Your task to perform on an android device: Go to Amazon Image 0: 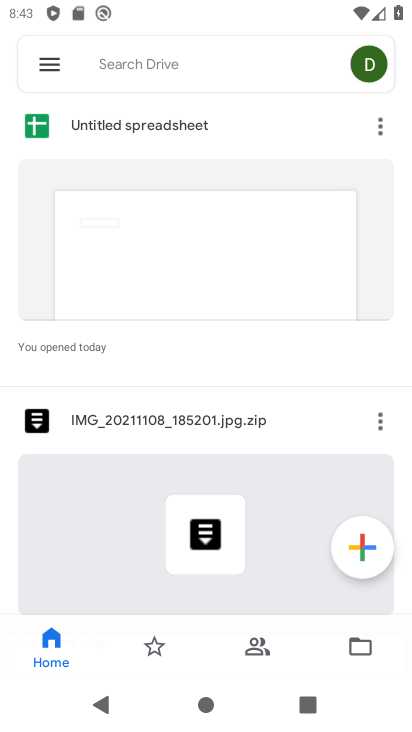
Step 0: press home button
Your task to perform on an android device: Go to Amazon Image 1: 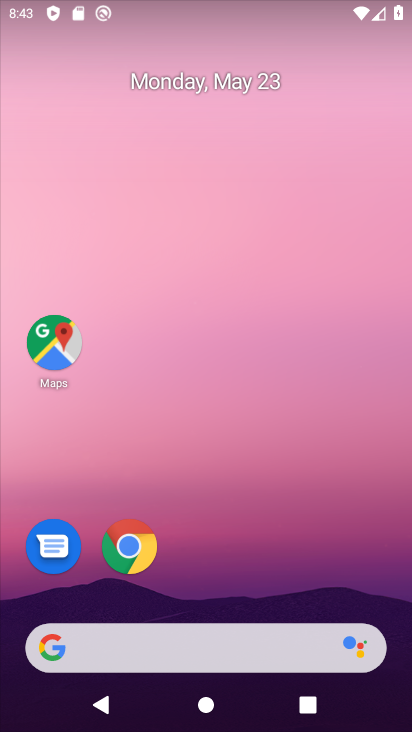
Step 1: drag from (303, 529) to (326, 138)
Your task to perform on an android device: Go to Amazon Image 2: 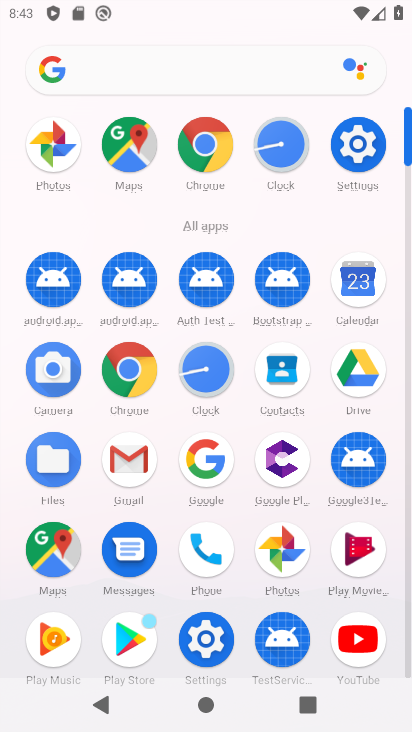
Step 2: click (133, 372)
Your task to perform on an android device: Go to Amazon Image 3: 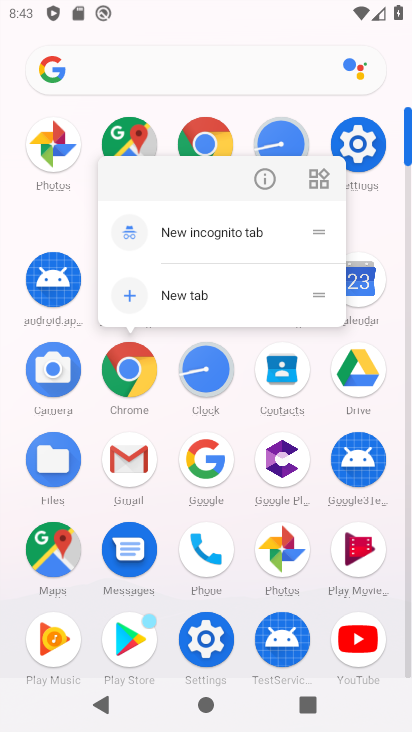
Step 3: click (133, 372)
Your task to perform on an android device: Go to Amazon Image 4: 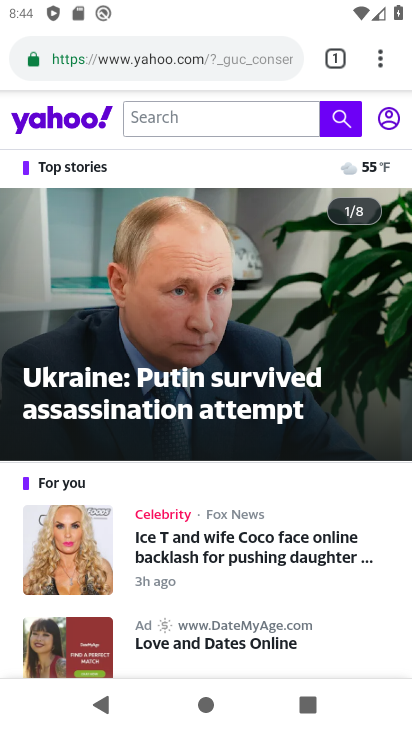
Step 4: click (218, 61)
Your task to perform on an android device: Go to Amazon Image 5: 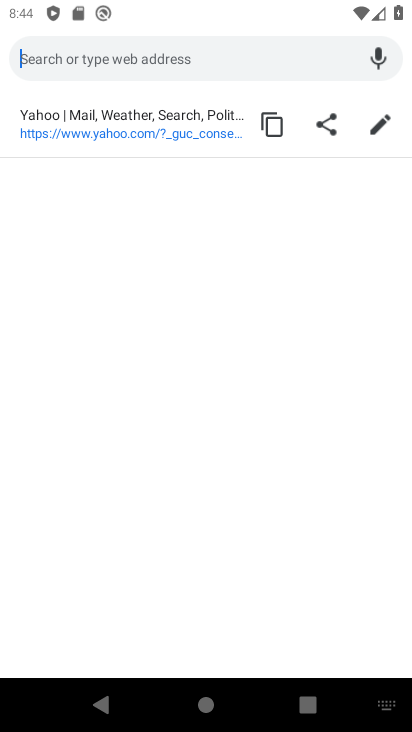
Step 5: type "amazon"
Your task to perform on an android device: Go to Amazon Image 6: 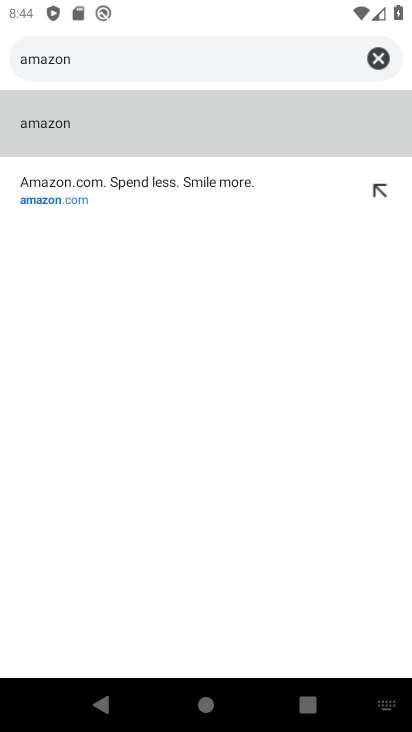
Step 6: click (64, 203)
Your task to perform on an android device: Go to Amazon Image 7: 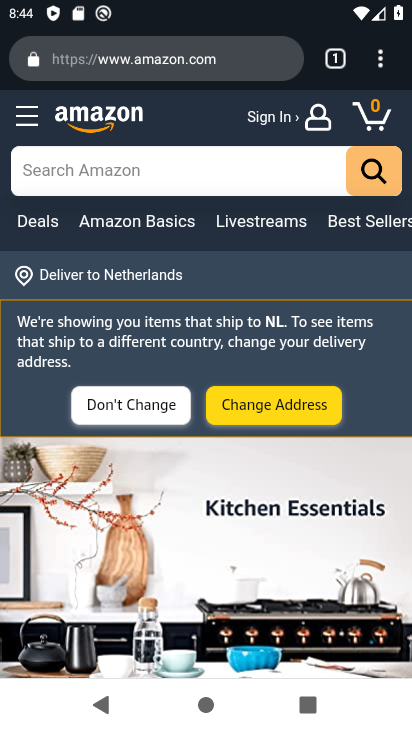
Step 7: task complete